Your task to perform on an android device: toggle pop-ups in chrome Image 0: 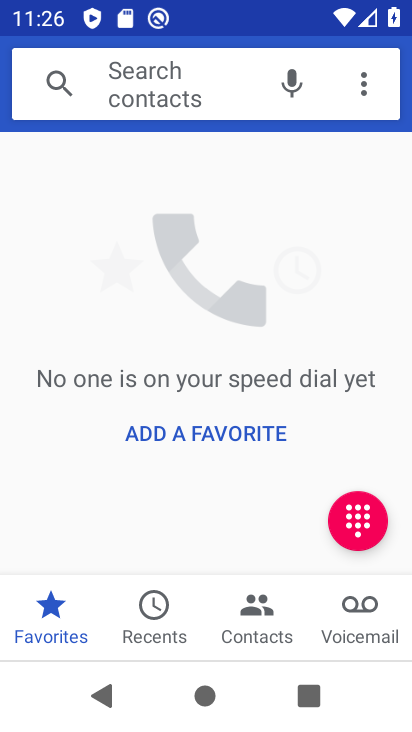
Step 0: press back button
Your task to perform on an android device: toggle pop-ups in chrome Image 1: 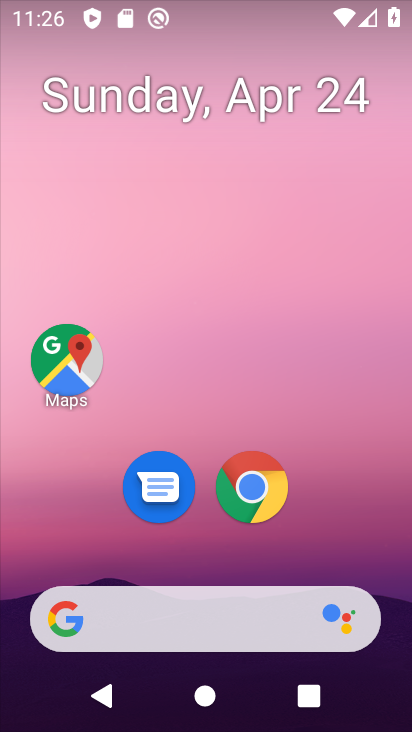
Step 1: drag from (395, 621) to (274, 68)
Your task to perform on an android device: toggle pop-ups in chrome Image 2: 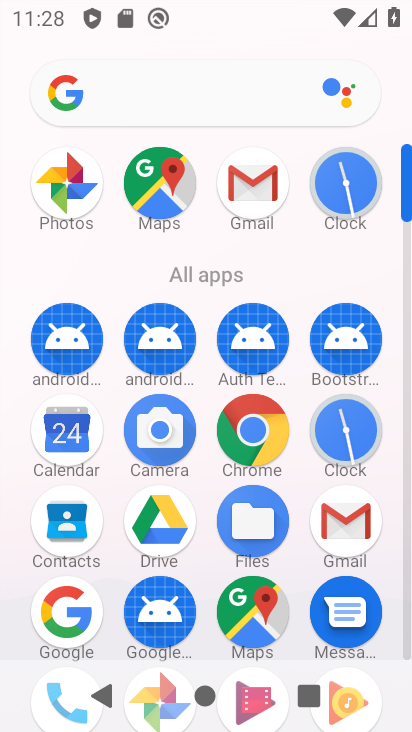
Step 2: click (251, 427)
Your task to perform on an android device: toggle pop-ups in chrome Image 3: 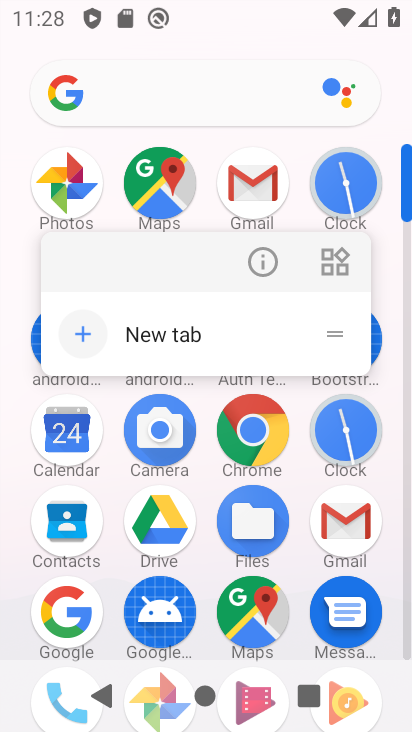
Step 3: click (251, 427)
Your task to perform on an android device: toggle pop-ups in chrome Image 4: 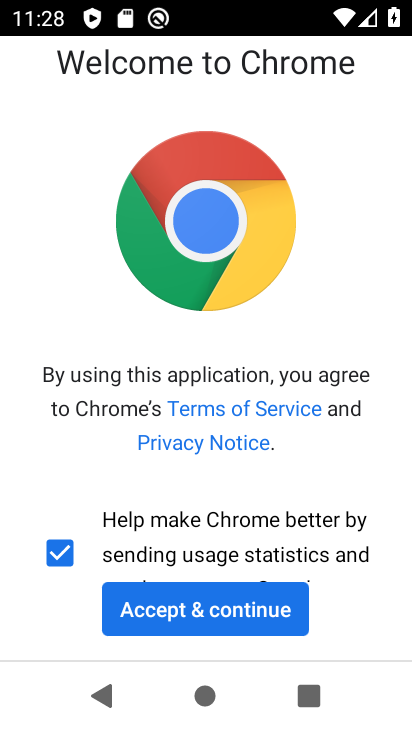
Step 4: click (231, 599)
Your task to perform on an android device: toggle pop-ups in chrome Image 5: 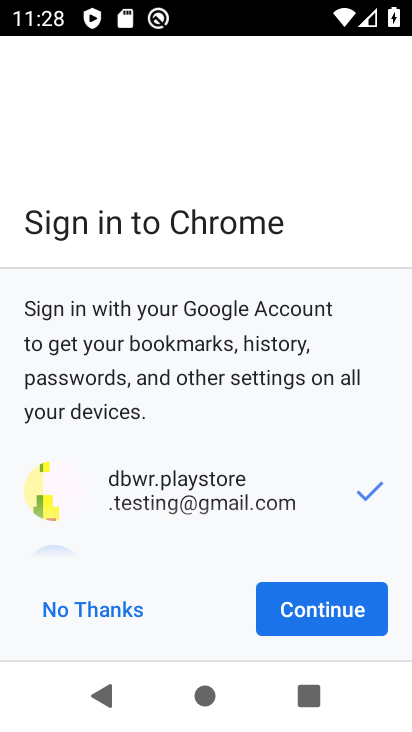
Step 5: click (328, 606)
Your task to perform on an android device: toggle pop-ups in chrome Image 6: 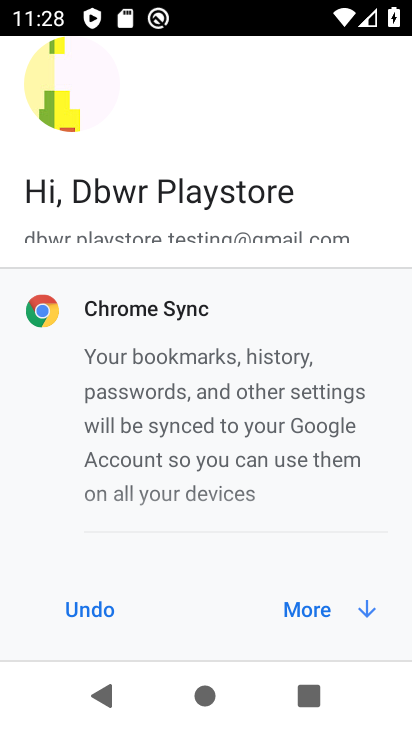
Step 6: click (328, 606)
Your task to perform on an android device: toggle pop-ups in chrome Image 7: 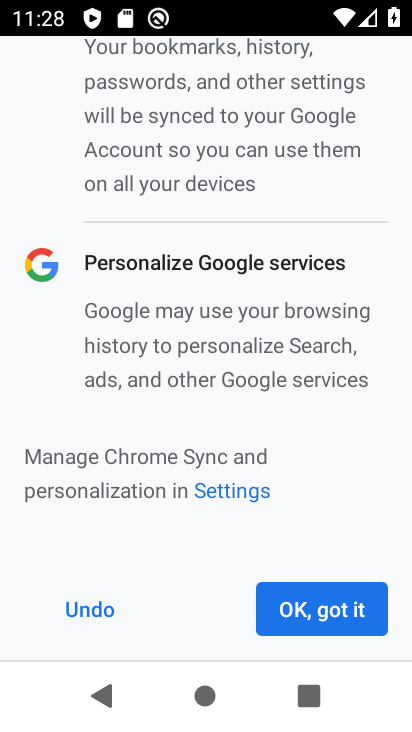
Step 7: click (328, 606)
Your task to perform on an android device: toggle pop-ups in chrome Image 8: 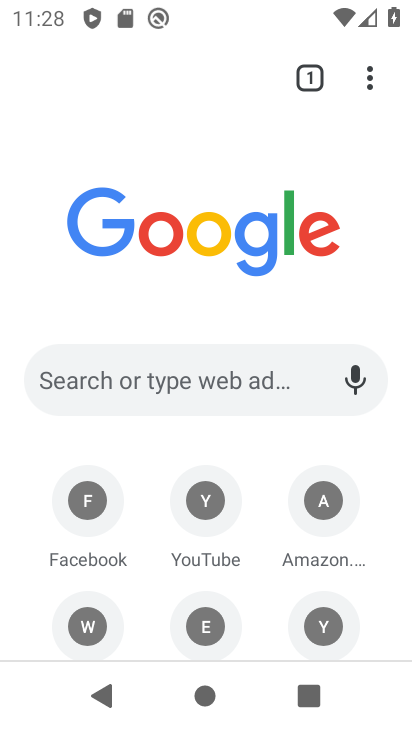
Step 8: click (369, 70)
Your task to perform on an android device: toggle pop-ups in chrome Image 9: 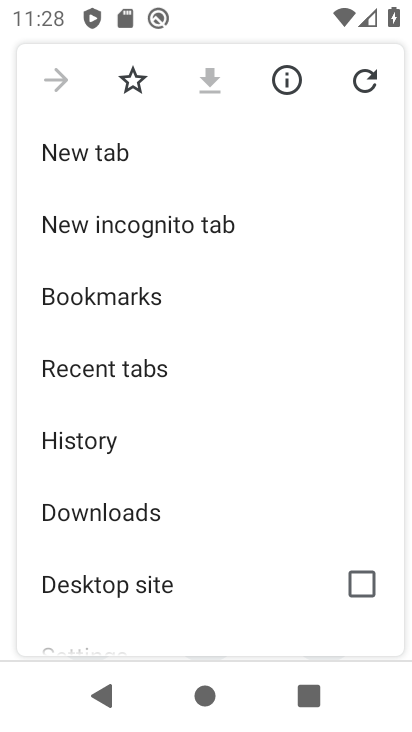
Step 9: drag from (170, 595) to (230, 138)
Your task to perform on an android device: toggle pop-ups in chrome Image 10: 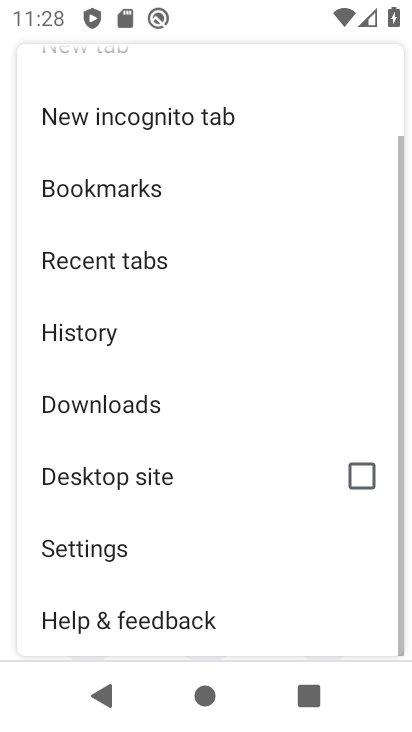
Step 10: click (104, 570)
Your task to perform on an android device: toggle pop-ups in chrome Image 11: 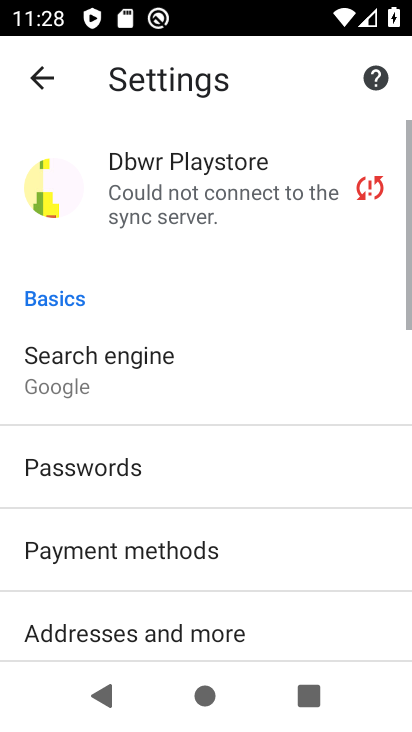
Step 11: drag from (122, 588) to (183, 93)
Your task to perform on an android device: toggle pop-ups in chrome Image 12: 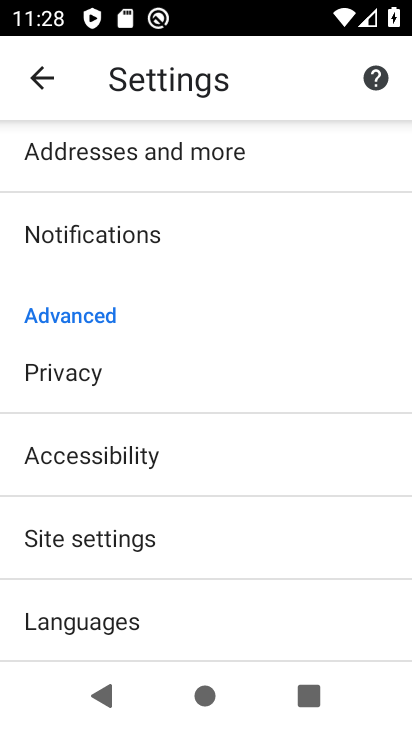
Step 12: click (197, 558)
Your task to perform on an android device: toggle pop-ups in chrome Image 13: 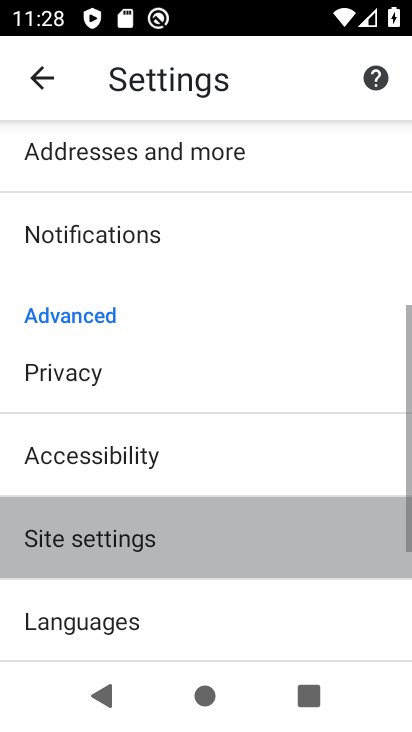
Step 13: drag from (172, 621) to (290, 234)
Your task to perform on an android device: toggle pop-ups in chrome Image 14: 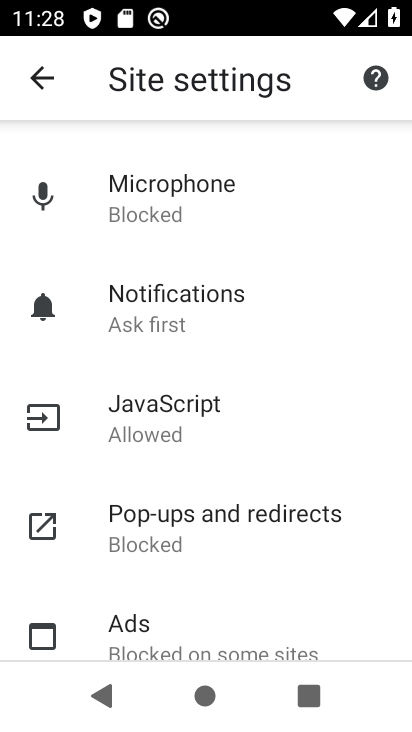
Step 14: click (217, 529)
Your task to perform on an android device: toggle pop-ups in chrome Image 15: 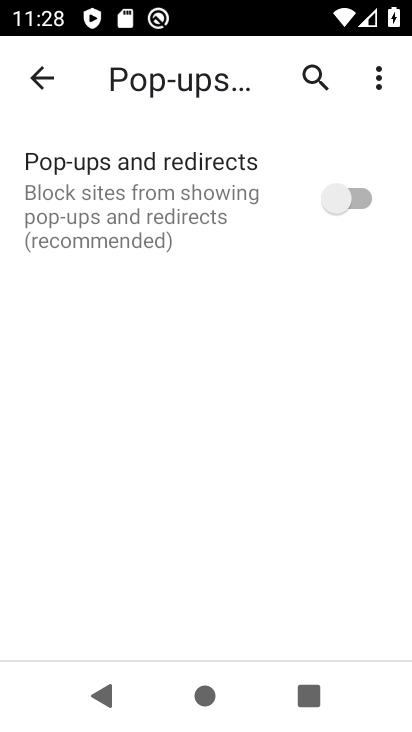
Step 15: click (313, 224)
Your task to perform on an android device: toggle pop-ups in chrome Image 16: 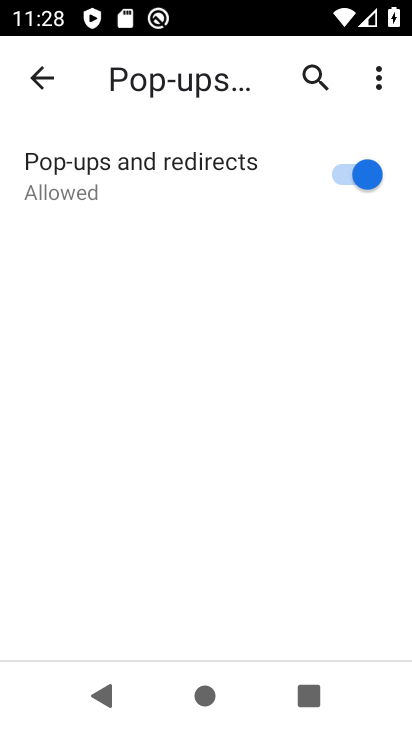
Step 16: task complete